Your task to perform on an android device: turn on sleep mode Image 0: 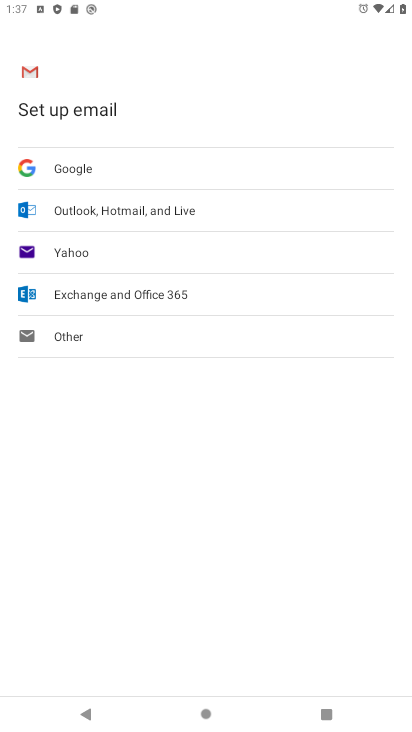
Step 0: press home button
Your task to perform on an android device: turn on sleep mode Image 1: 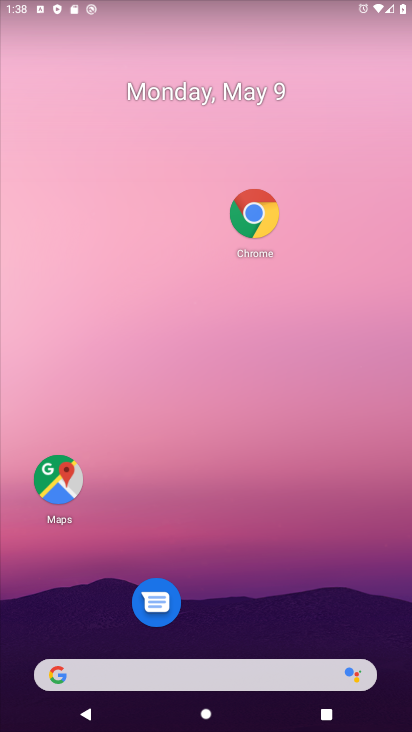
Step 1: drag from (237, 593) to (210, 50)
Your task to perform on an android device: turn on sleep mode Image 2: 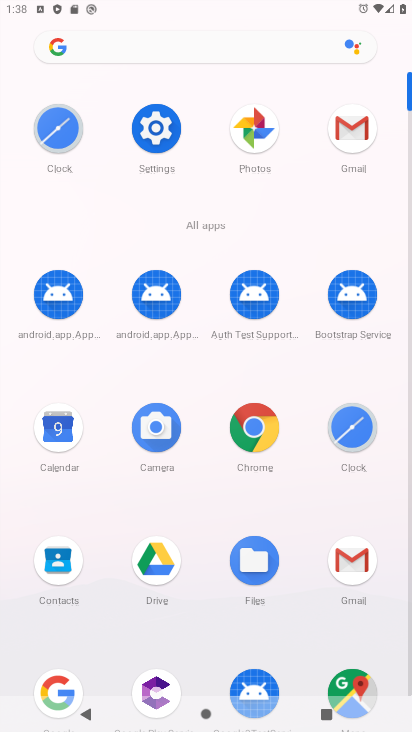
Step 2: click (164, 134)
Your task to perform on an android device: turn on sleep mode Image 3: 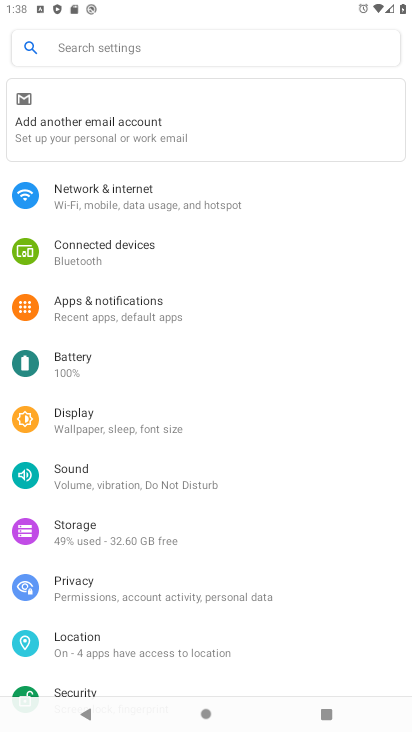
Step 3: click (140, 429)
Your task to perform on an android device: turn on sleep mode Image 4: 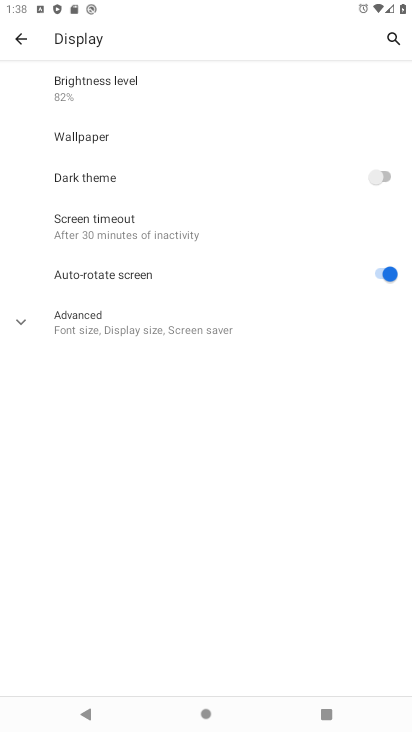
Step 4: click (170, 220)
Your task to perform on an android device: turn on sleep mode Image 5: 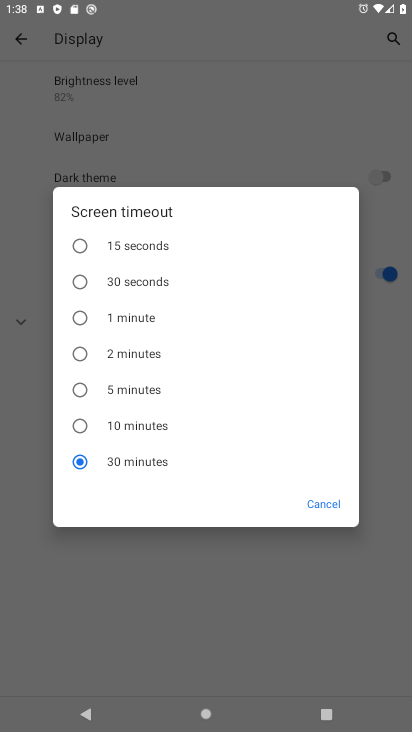
Step 5: click (167, 251)
Your task to perform on an android device: turn on sleep mode Image 6: 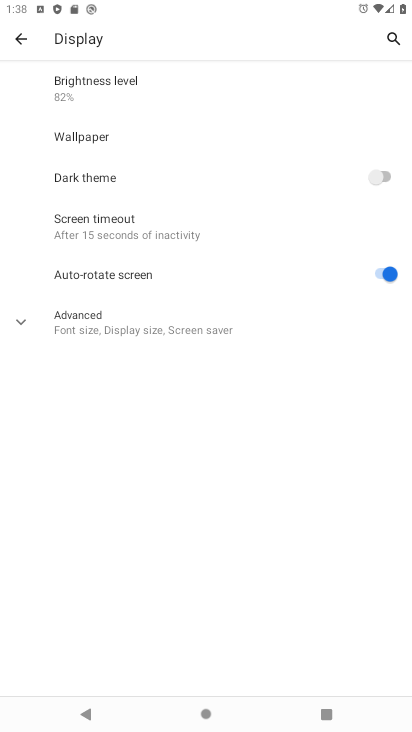
Step 6: task complete